Your task to perform on an android device: change notification settings in the gmail app Image 0: 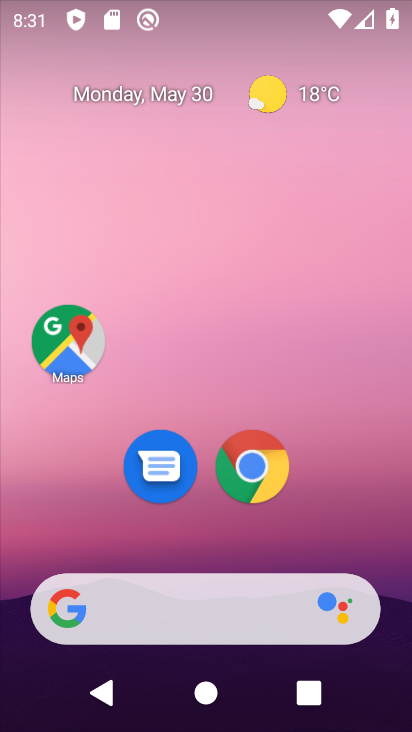
Step 0: drag from (299, 489) to (272, 33)
Your task to perform on an android device: change notification settings in the gmail app Image 1: 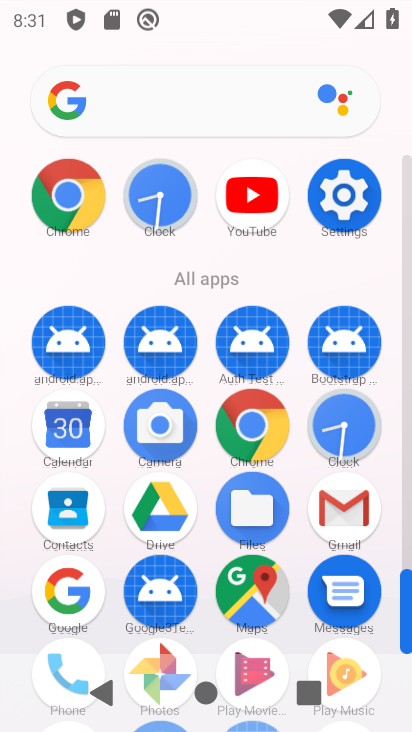
Step 1: click (322, 505)
Your task to perform on an android device: change notification settings in the gmail app Image 2: 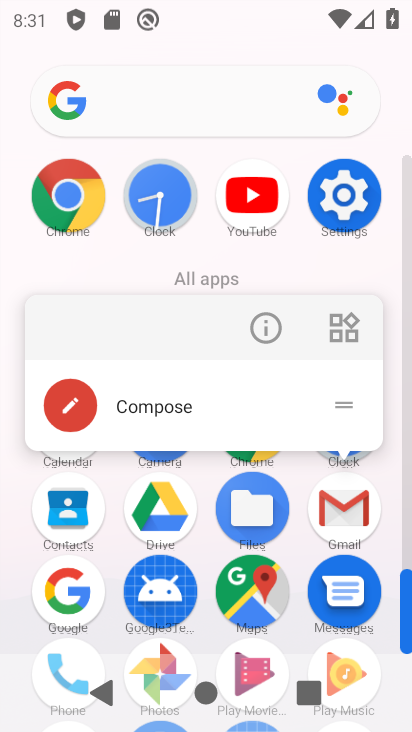
Step 2: click (262, 321)
Your task to perform on an android device: change notification settings in the gmail app Image 3: 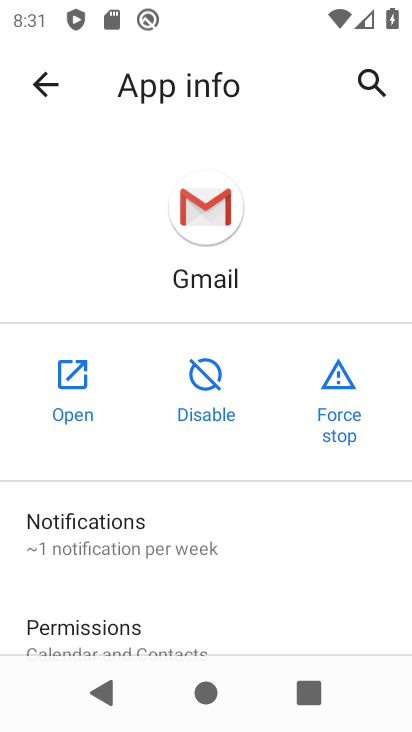
Step 3: click (99, 518)
Your task to perform on an android device: change notification settings in the gmail app Image 4: 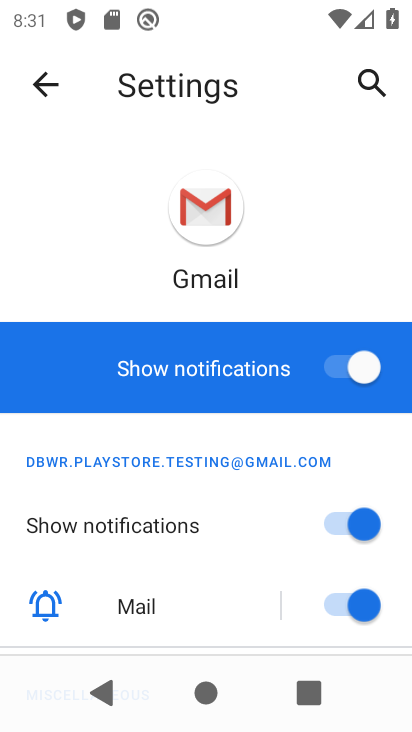
Step 4: click (360, 355)
Your task to perform on an android device: change notification settings in the gmail app Image 5: 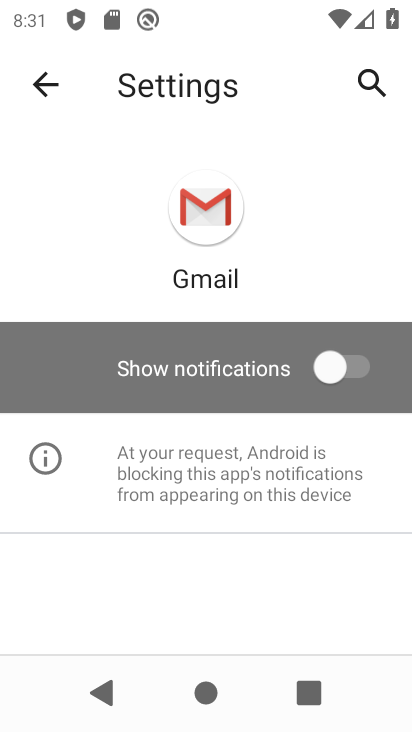
Step 5: task complete